Your task to perform on an android device: Open maps Image 0: 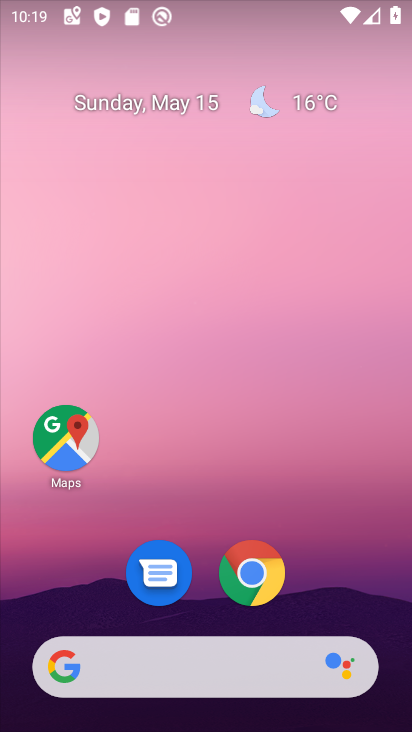
Step 0: click (62, 451)
Your task to perform on an android device: Open maps Image 1: 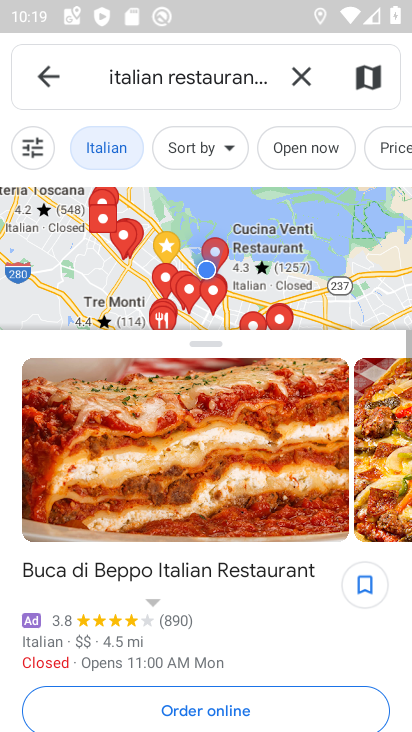
Step 1: task complete